Your task to perform on an android device: turn smart compose on in the gmail app Image 0: 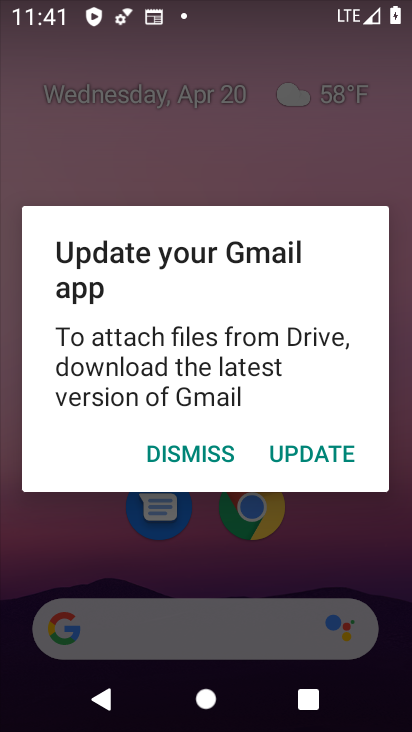
Step 0: press home button
Your task to perform on an android device: turn smart compose on in the gmail app Image 1: 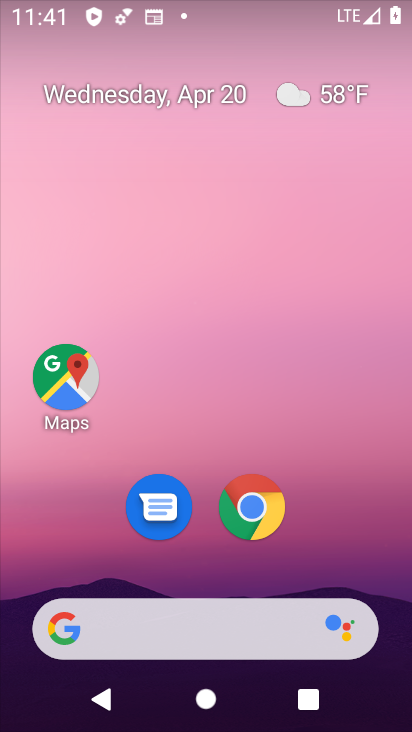
Step 1: drag from (348, 540) to (384, 113)
Your task to perform on an android device: turn smart compose on in the gmail app Image 2: 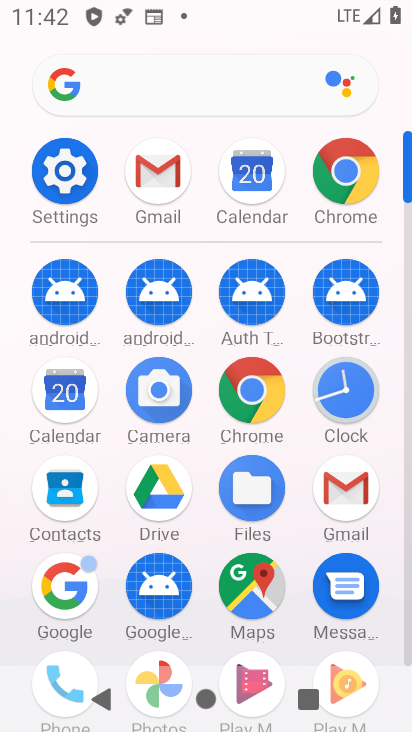
Step 2: click (345, 485)
Your task to perform on an android device: turn smart compose on in the gmail app Image 3: 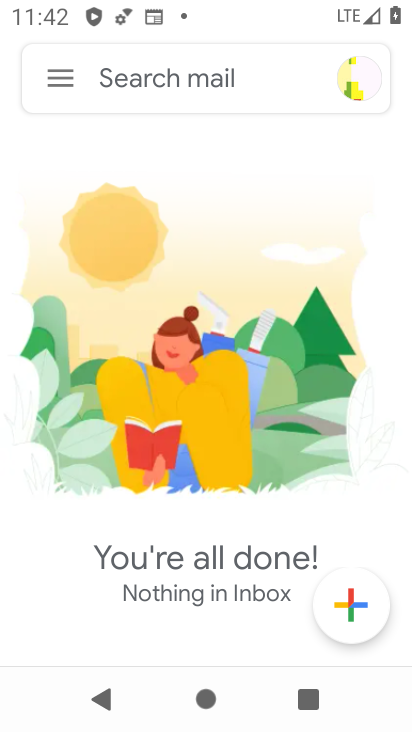
Step 3: click (71, 80)
Your task to perform on an android device: turn smart compose on in the gmail app Image 4: 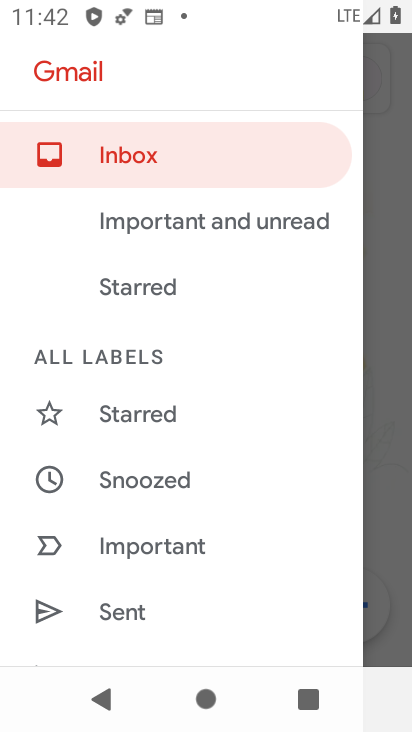
Step 4: drag from (303, 602) to (268, 436)
Your task to perform on an android device: turn smart compose on in the gmail app Image 5: 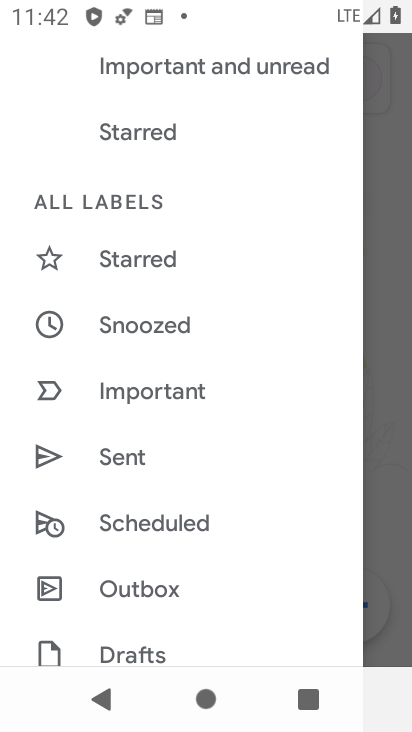
Step 5: drag from (275, 588) to (274, 400)
Your task to perform on an android device: turn smart compose on in the gmail app Image 6: 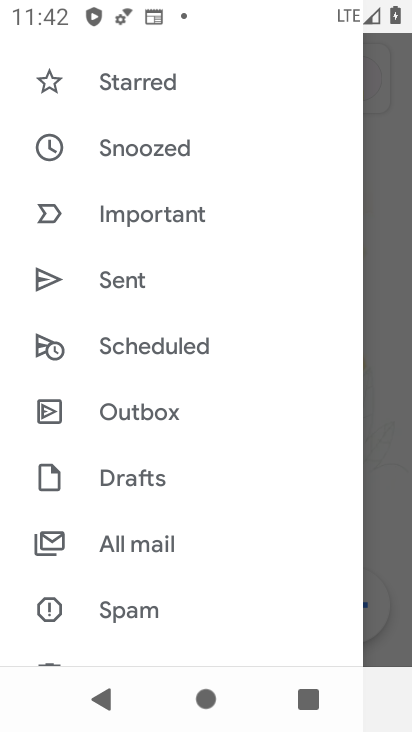
Step 6: drag from (278, 561) to (283, 398)
Your task to perform on an android device: turn smart compose on in the gmail app Image 7: 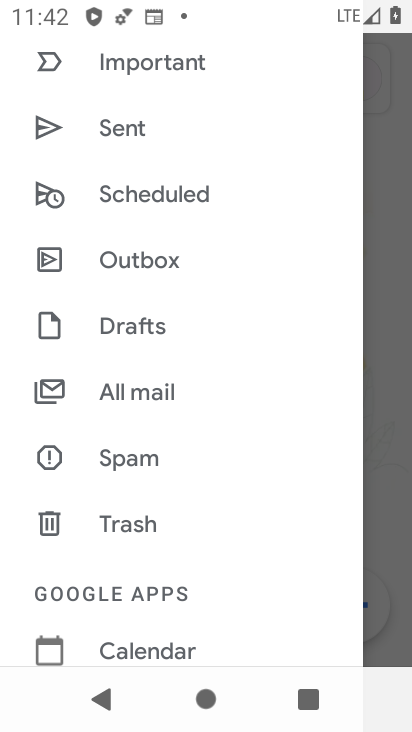
Step 7: drag from (276, 593) to (274, 439)
Your task to perform on an android device: turn smart compose on in the gmail app Image 8: 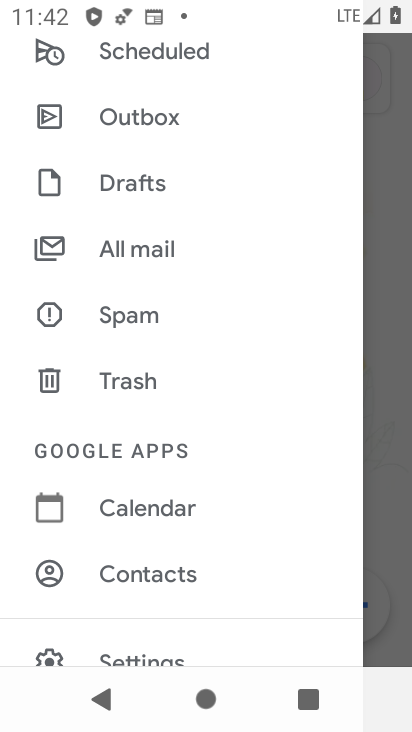
Step 8: drag from (254, 593) to (251, 439)
Your task to perform on an android device: turn smart compose on in the gmail app Image 9: 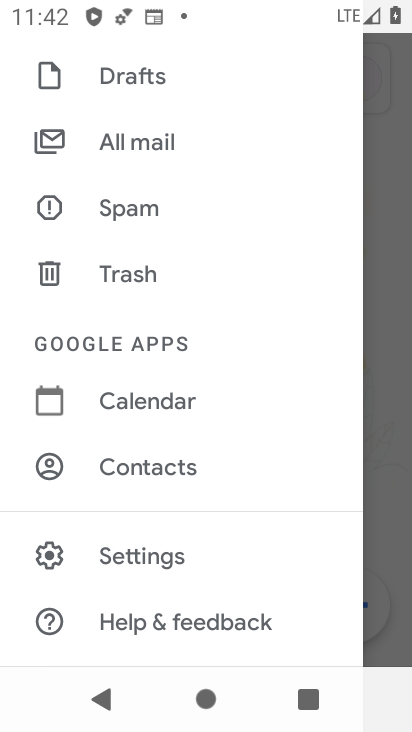
Step 9: drag from (291, 599) to (292, 478)
Your task to perform on an android device: turn smart compose on in the gmail app Image 10: 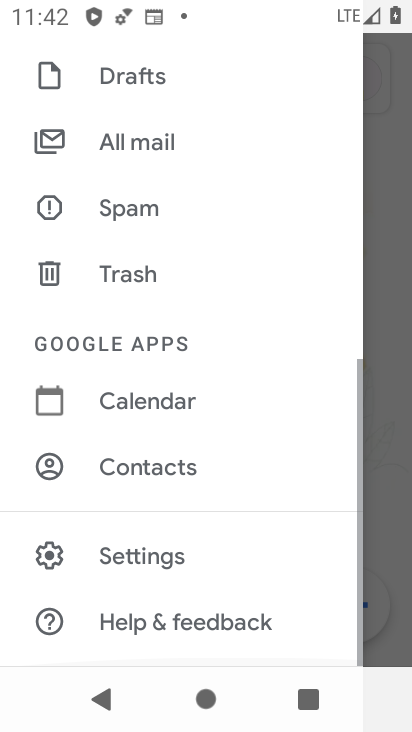
Step 10: click (162, 576)
Your task to perform on an android device: turn smart compose on in the gmail app Image 11: 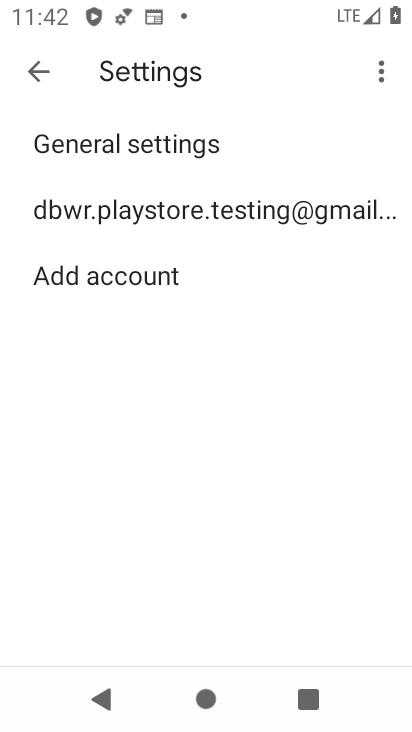
Step 11: click (268, 215)
Your task to perform on an android device: turn smart compose on in the gmail app Image 12: 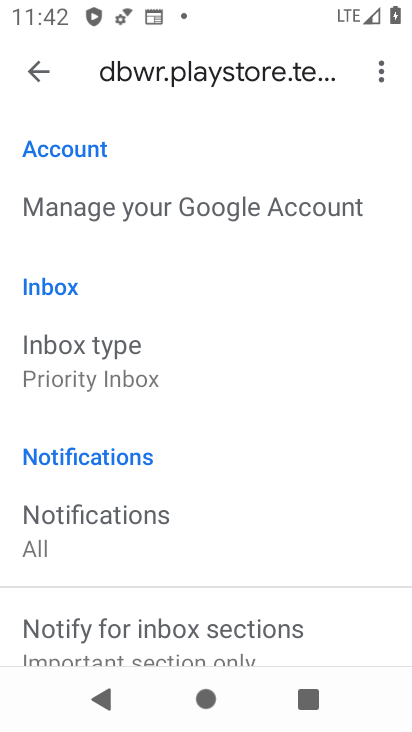
Step 12: task complete